Your task to perform on an android device: allow notifications from all sites in the chrome app Image 0: 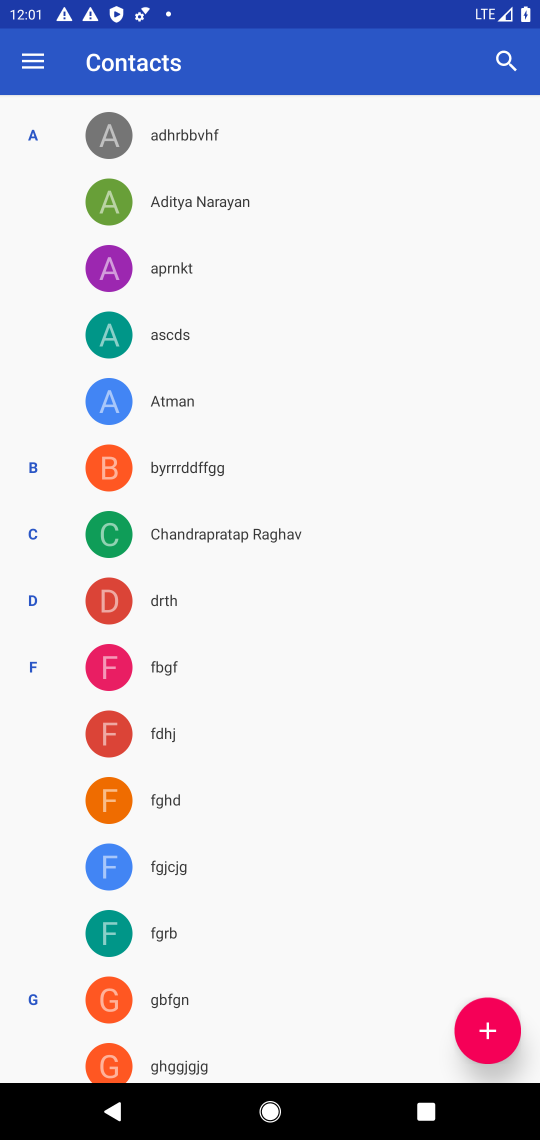
Step 0: press home button
Your task to perform on an android device: allow notifications from all sites in the chrome app Image 1: 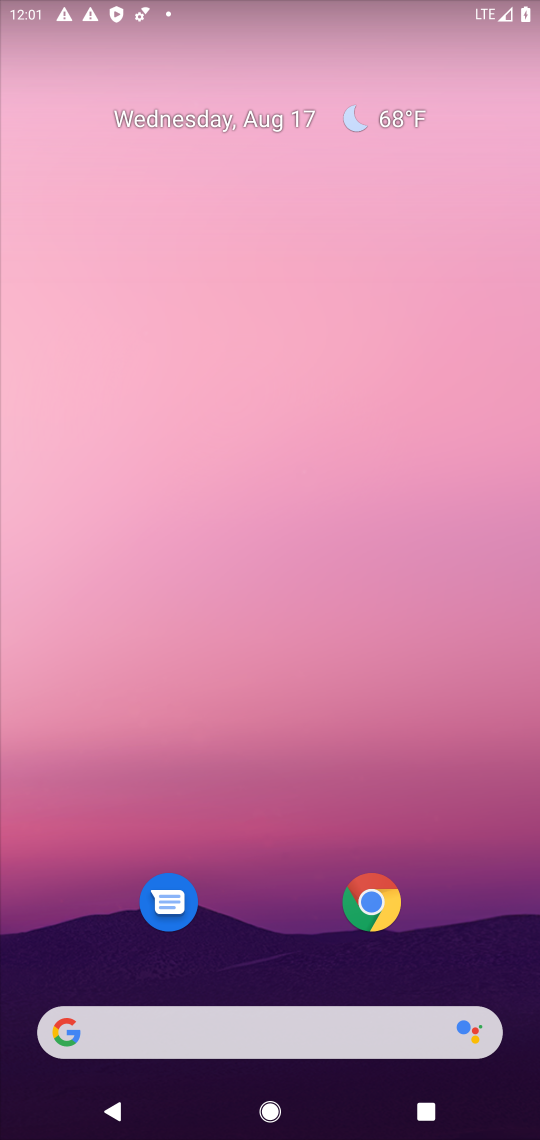
Step 1: drag from (240, 939) to (90, 15)
Your task to perform on an android device: allow notifications from all sites in the chrome app Image 2: 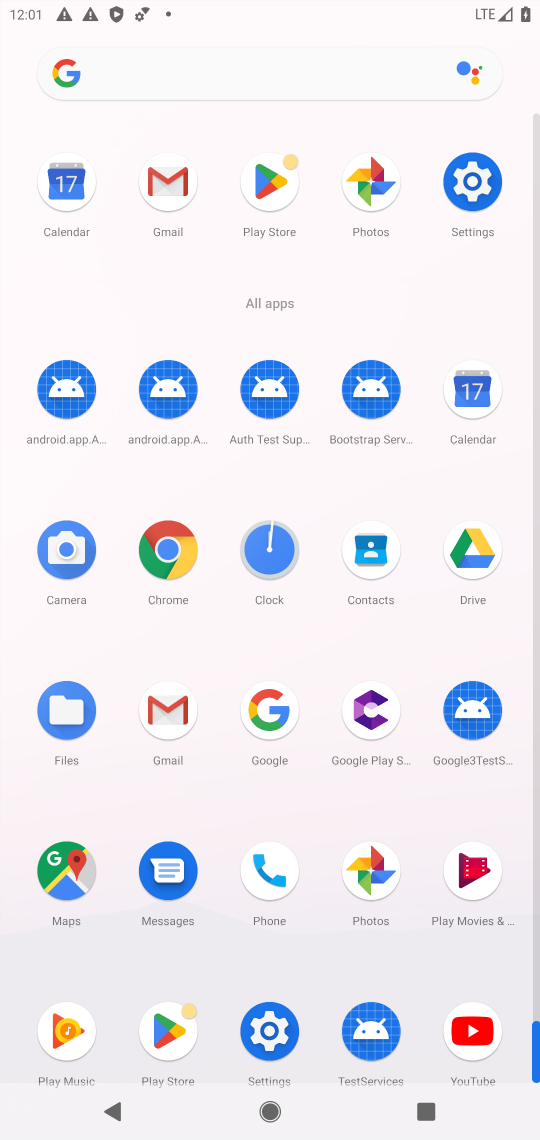
Step 2: click (173, 592)
Your task to perform on an android device: allow notifications from all sites in the chrome app Image 3: 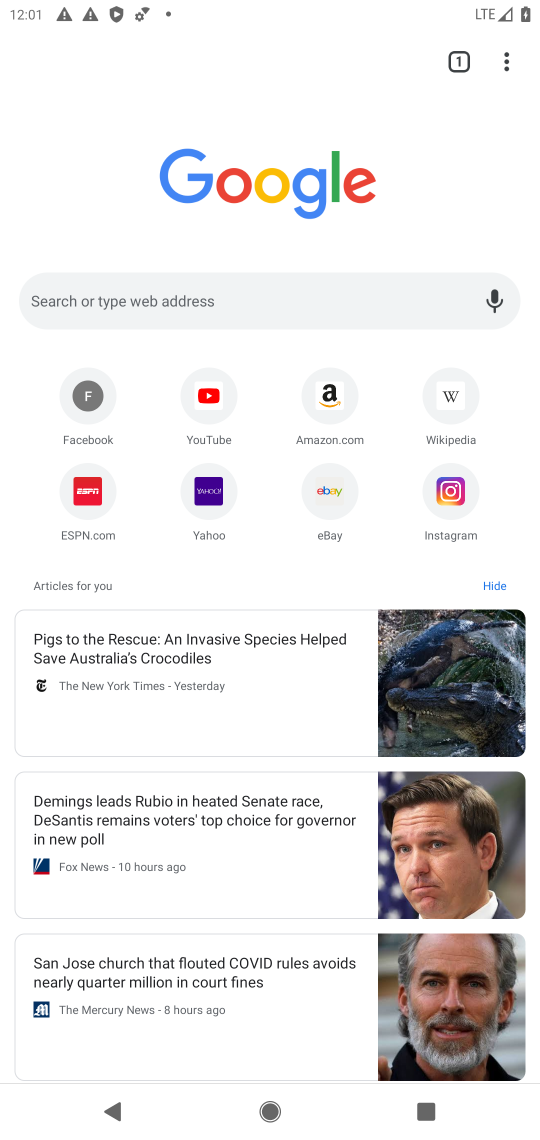
Step 3: click (508, 66)
Your task to perform on an android device: allow notifications from all sites in the chrome app Image 4: 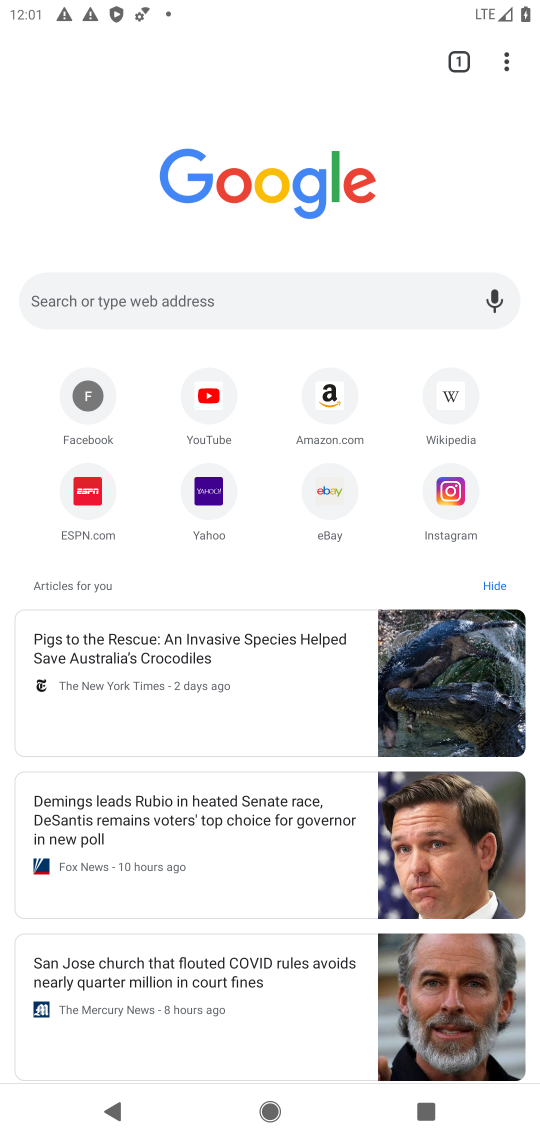
Step 4: click (505, 55)
Your task to perform on an android device: allow notifications from all sites in the chrome app Image 5: 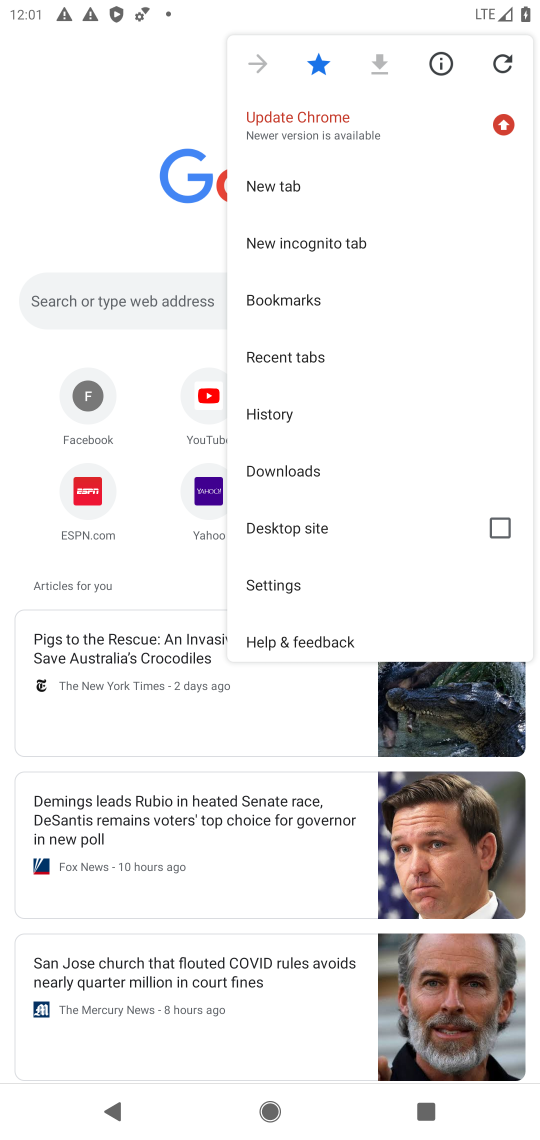
Step 5: click (288, 589)
Your task to perform on an android device: allow notifications from all sites in the chrome app Image 6: 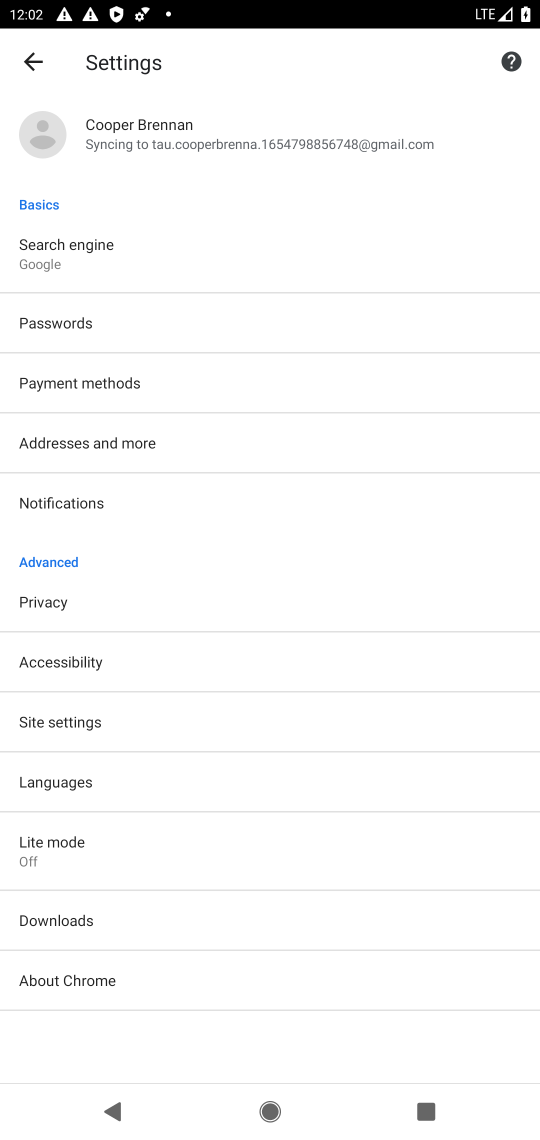
Step 6: click (95, 504)
Your task to perform on an android device: allow notifications from all sites in the chrome app Image 7: 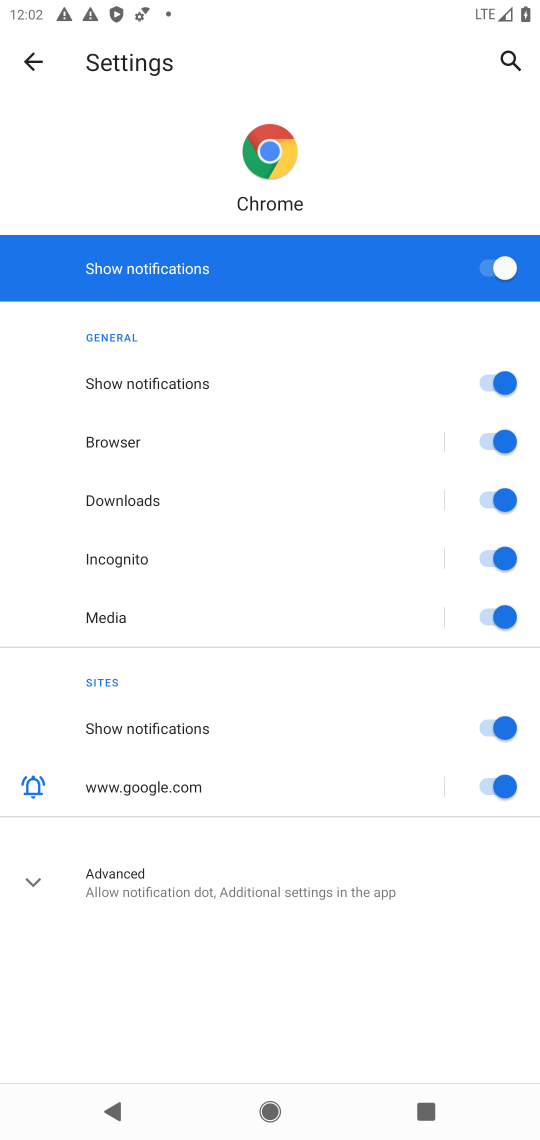
Step 7: task complete